Your task to perform on an android device: clear history in the chrome app Image 0: 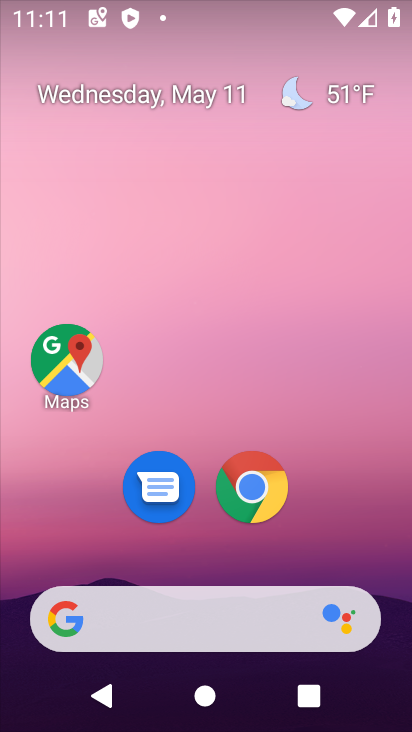
Step 0: click (272, 483)
Your task to perform on an android device: clear history in the chrome app Image 1: 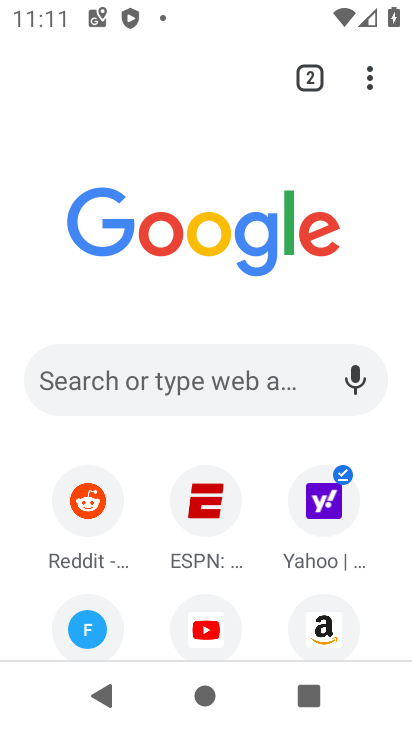
Step 1: click (368, 72)
Your task to perform on an android device: clear history in the chrome app Image 2: 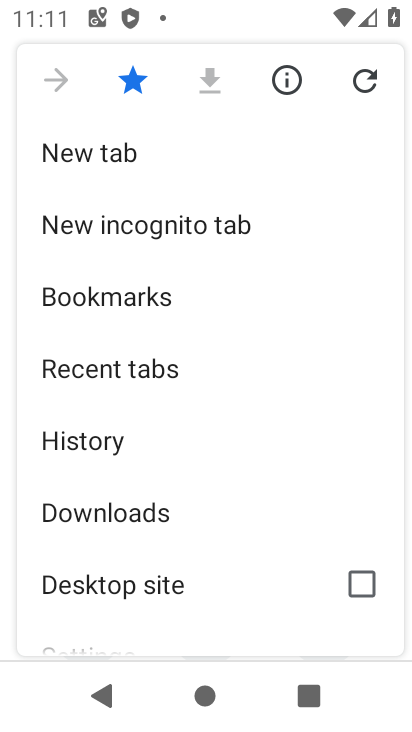
Step 2: click (170, 425)
Your task to perform on an android device: clear history in the chrome app Image 3: 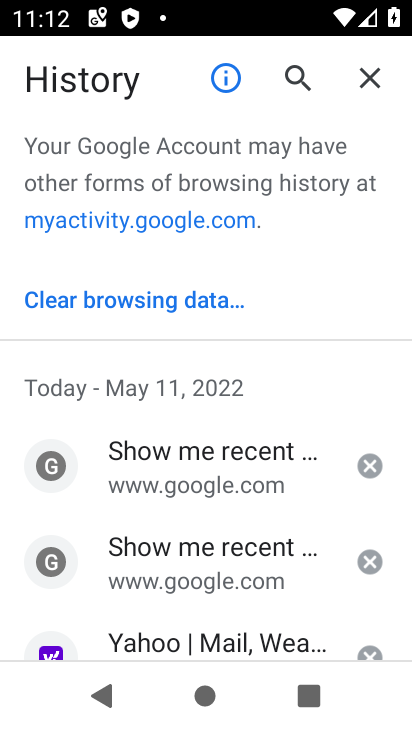
Step 3: click (185, 301)
Your task to perform on an android device: clear history in the chrome app Image 4: 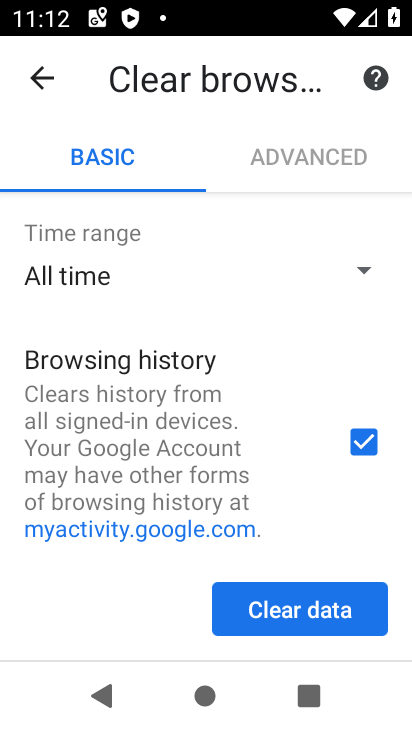
Step 4: click (323, 625)
Your task to perform on an android device: clear history in the chrome app Image 5: 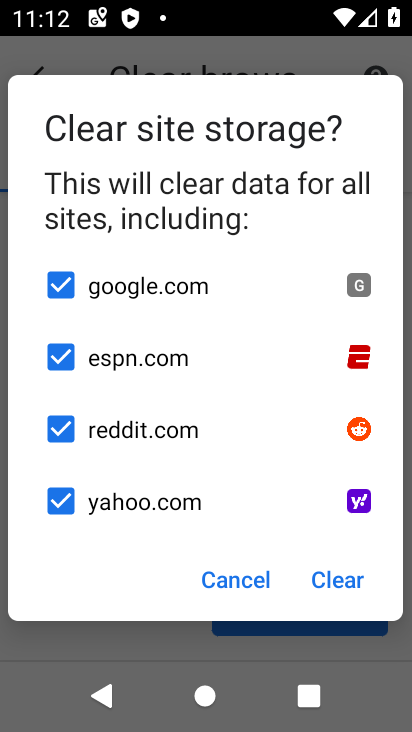
Step 5: click (331, 582)
Your task to perform on an android device: clear history in the chrome app Image 6: 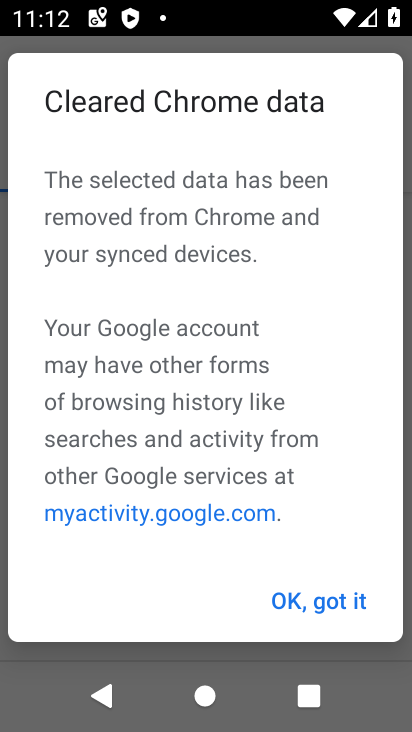
Step 6: click (284, 591)
Your task to perform on an android device: clear history in the chrome app Image 7: 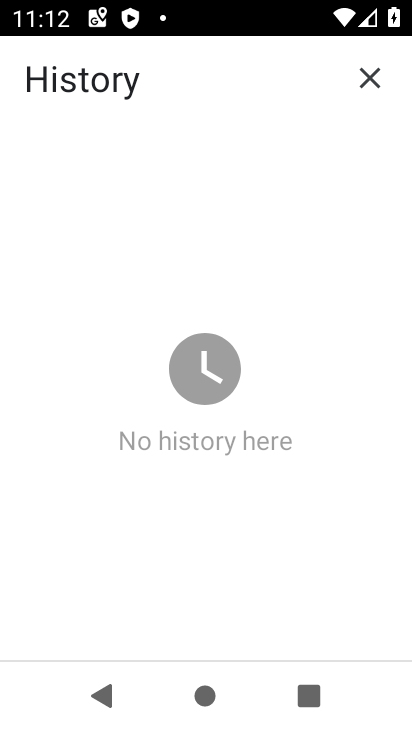
Step 7: task complete